Your task to perform on an android device: Find coffee shops on Maps Image 0: 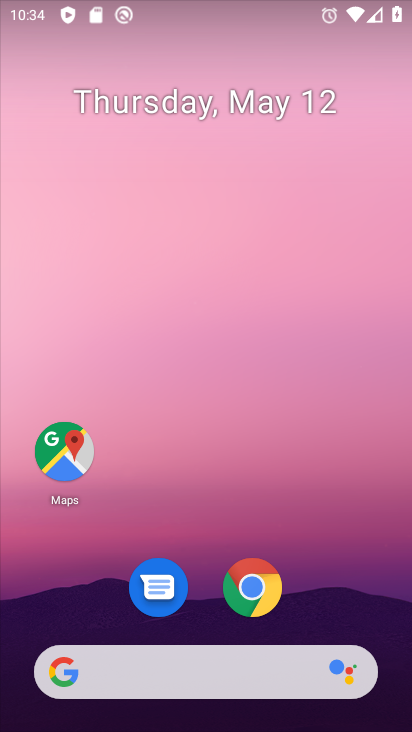
Step 0: drag from (372, 586) to (303, 10)
Your task to perform on an android device: Find coffee shops on Maps Image 1: 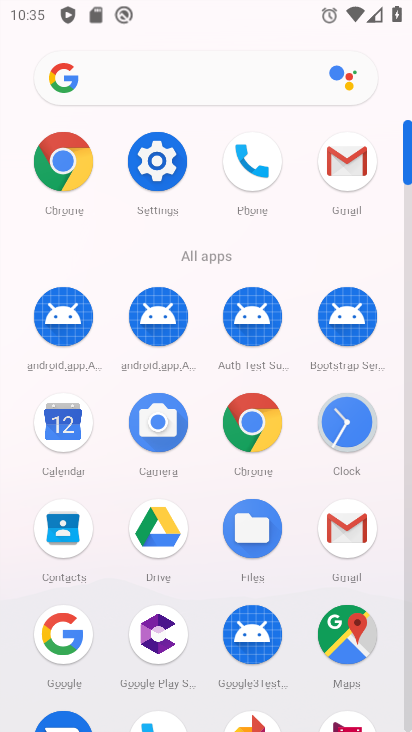
Step 1: click (360, 632)
Your task to perform on an android device: Find coffee shops on Maps Image 2: 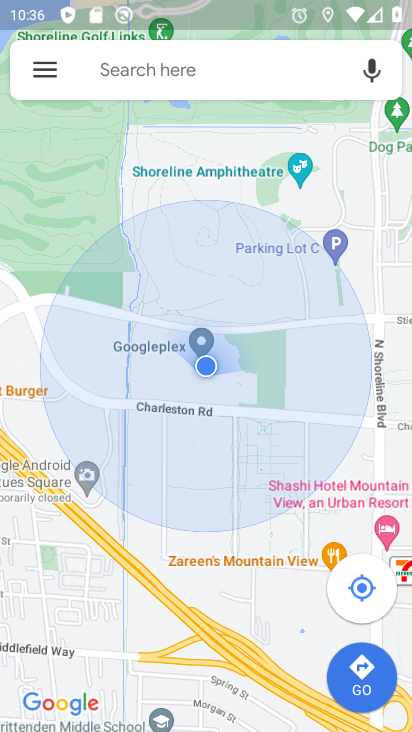
Step 2: task complete